Your task to perform on an android device: empty trash in the gmail app Image 0: 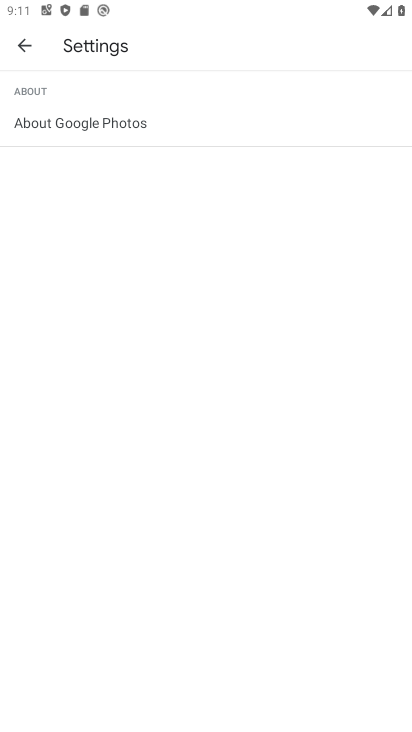
Step 0: press home button
Your task to perform on an android device: empty trash in the gmail app Image 1: 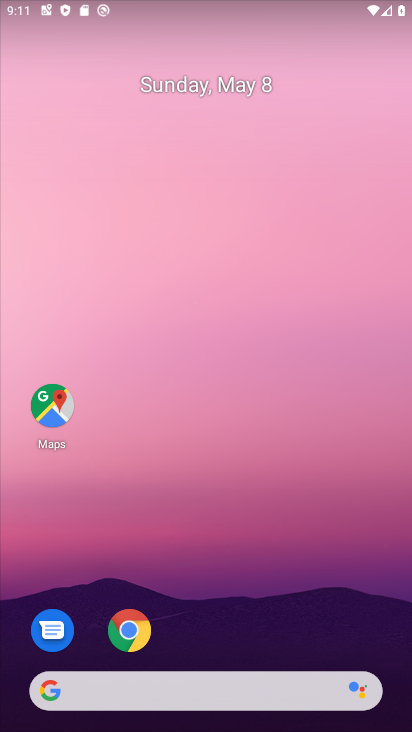
Step 1: drag from (199, 695) to (340, 140)
Your task to perform on an android device: empty trash in the gmail app Image 2: 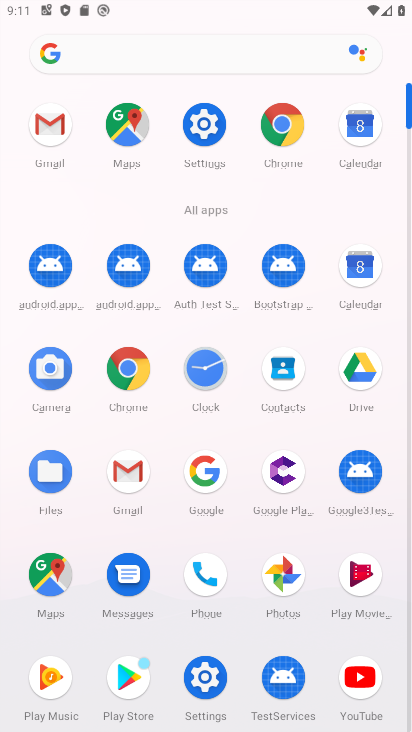
Step 2: click (125, 485)
Your task to perform on an android device: empty trash in the gmail app Image 3: 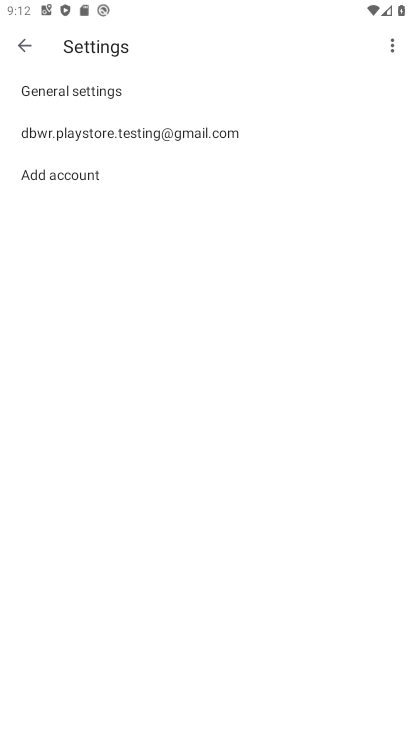
Step 3: click (27, 38)
Your task to perform on an android device: empty trash in the gmail app Image 4: 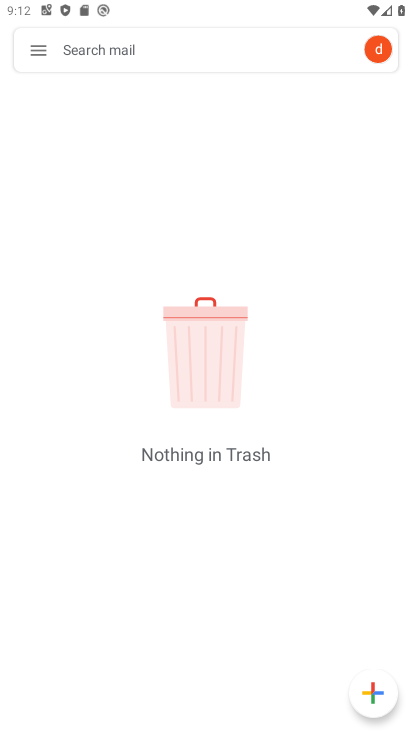
Step 4: click (42, 48)
Your task to perform on an android device: empty trash in the gmail app Image 5: 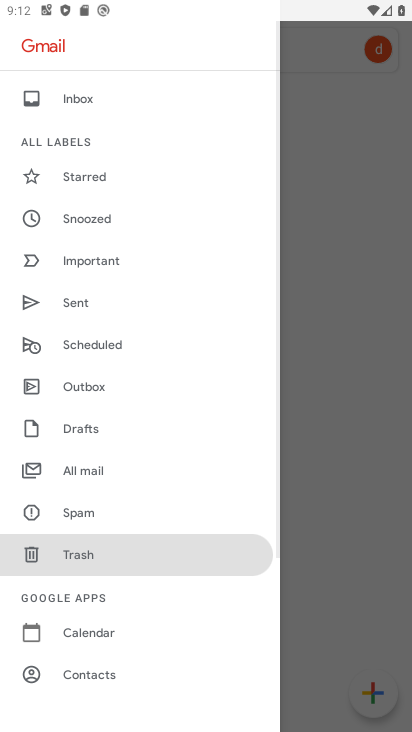
Step 5: click (50, 556)
Your task to perform on an android device: empty trash in the gmail app Image 6: 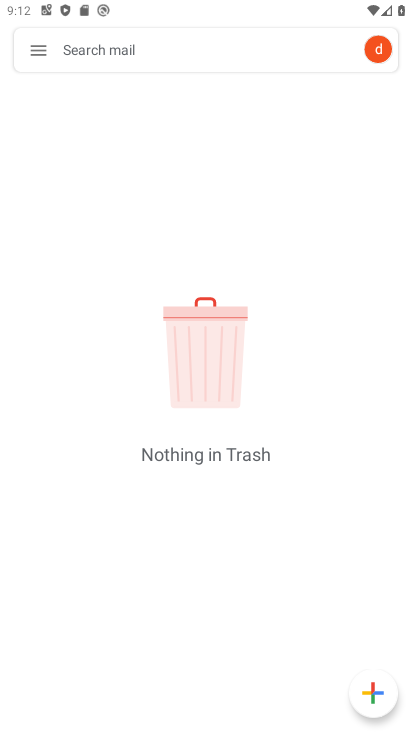
Step 6: task complete